Your task to perform on an android device: check google app version Image 0: 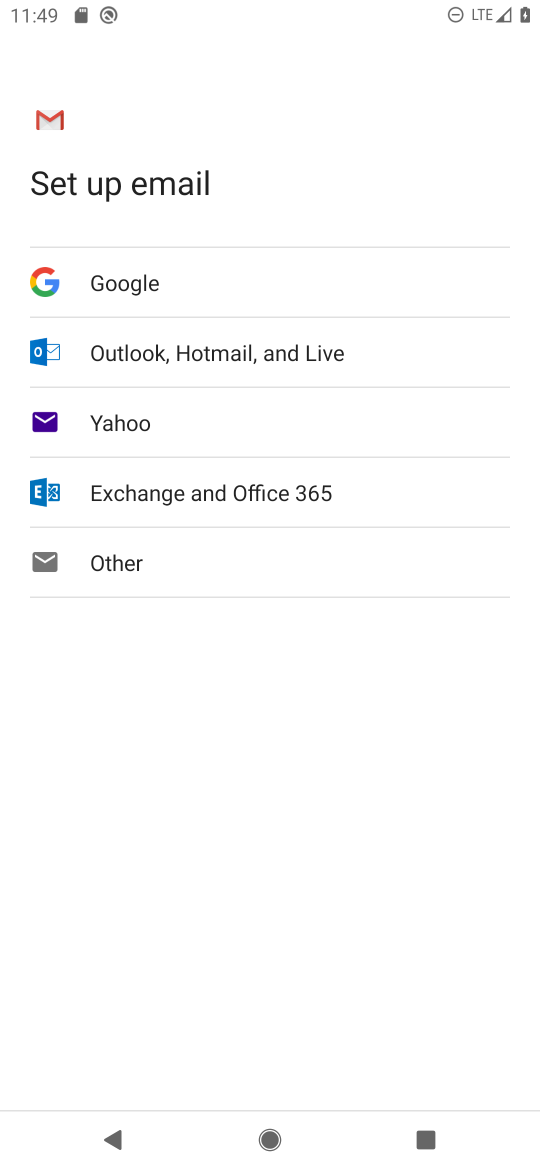
Step 0: press home button
Your task to perform on an android device: check google app version Image 1: 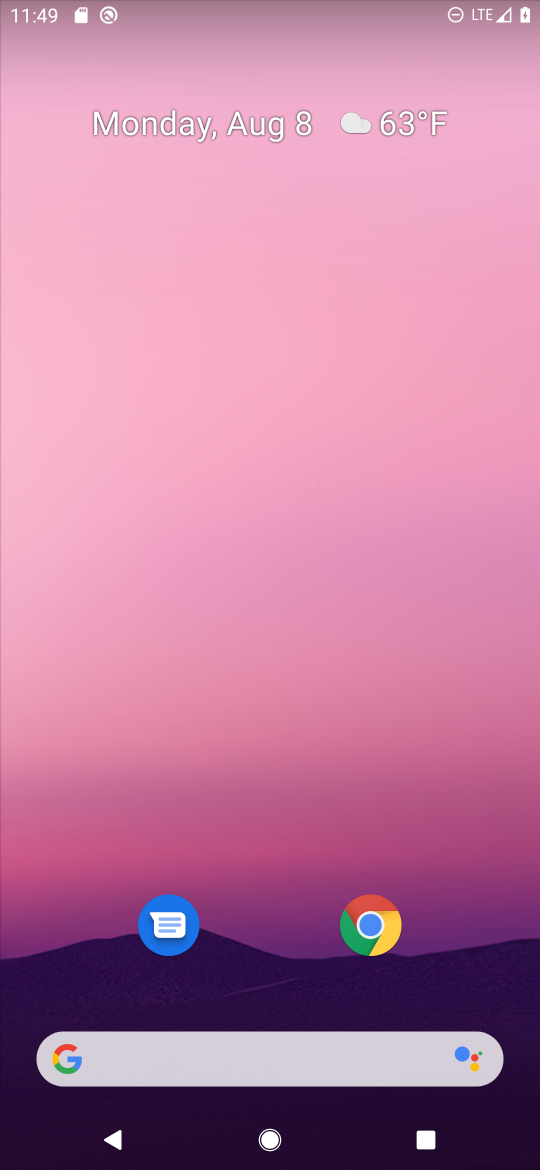
Step 1: drag from (266, 676) to (370, 0)
Your task to perform on an android device: check google app version Image 2: 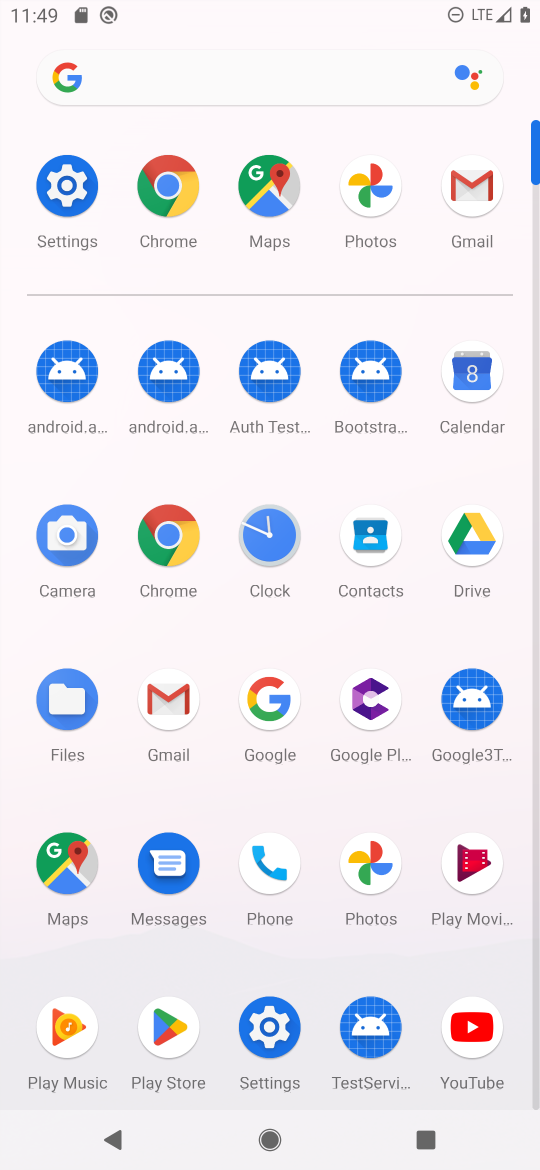
Step 2: click (261, 704)
Your task to perform on an android device: check google app version Image 3: 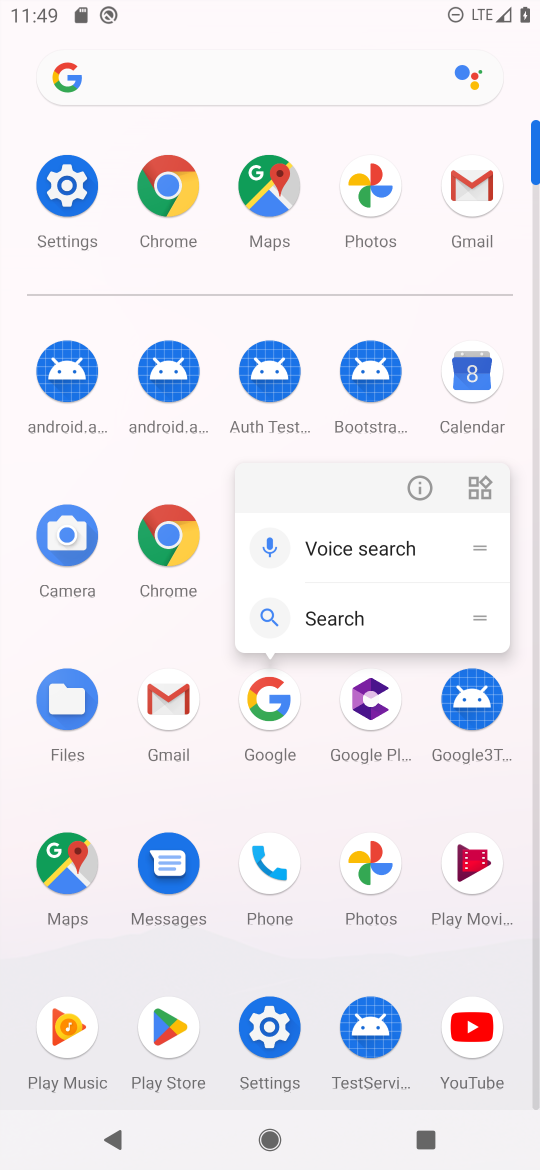
Step 3: click (425, 490)
Your task to perform on an android device: check google app version Image 4: 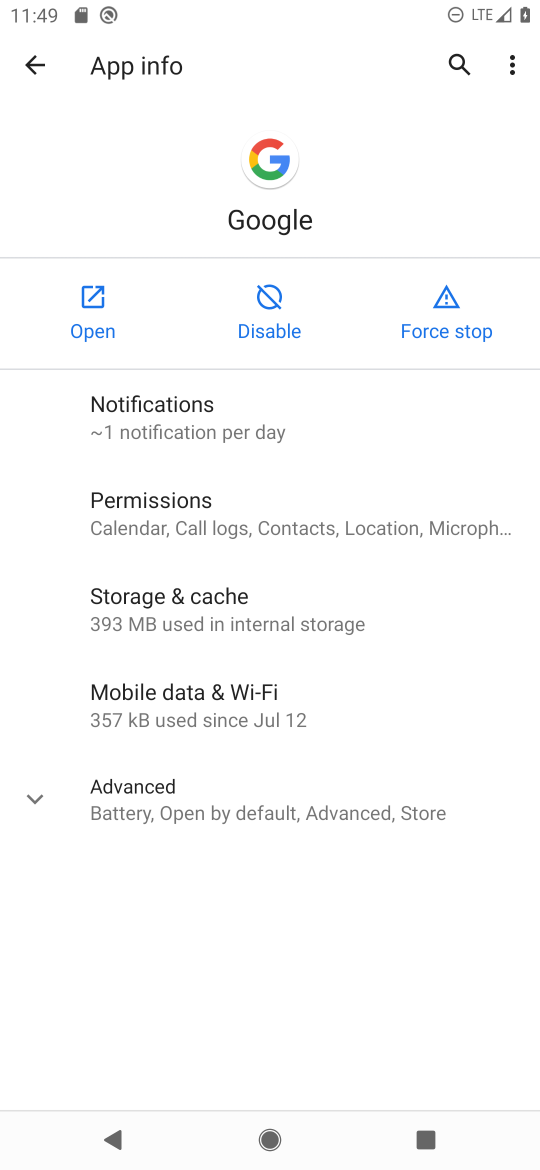
Step 4: click (200, 806)
Your task to perform on an android device: check google app version Image 5: 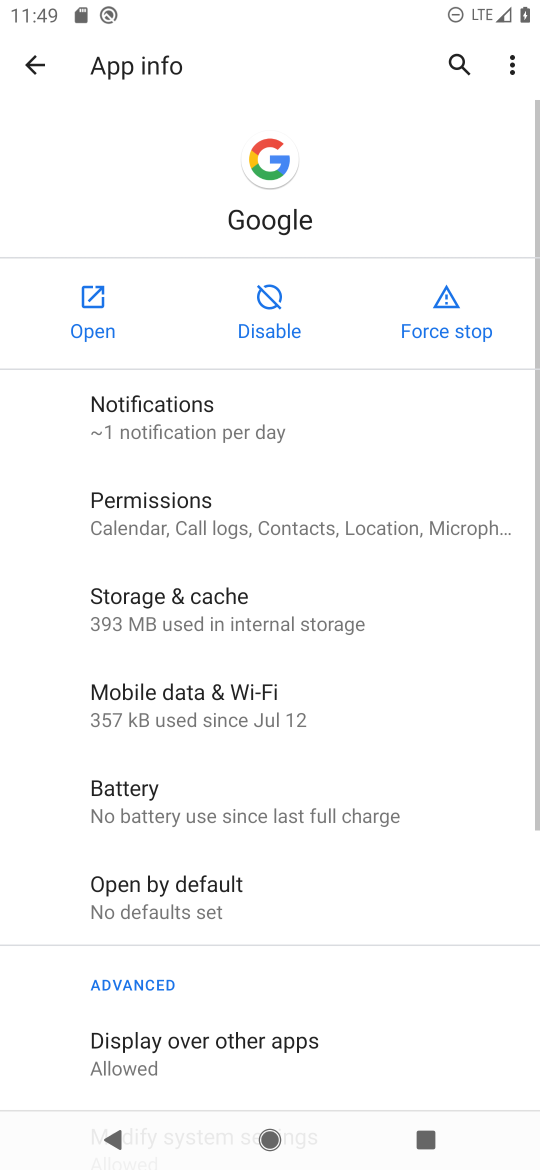
Step 5: task complete